Your task to perform on an android device: Open calendar and show me the third week of next month Image 0: 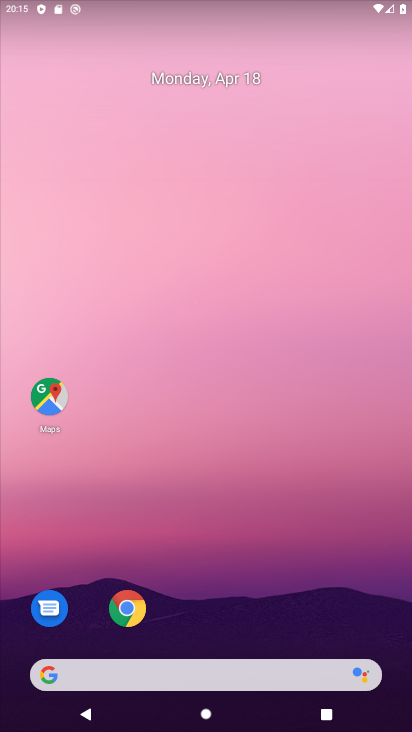
Step 0: drag from (219, 585) to (219, 108)
Your task to perform on an android device: Open calendar and show me the third week of next month Image 1: 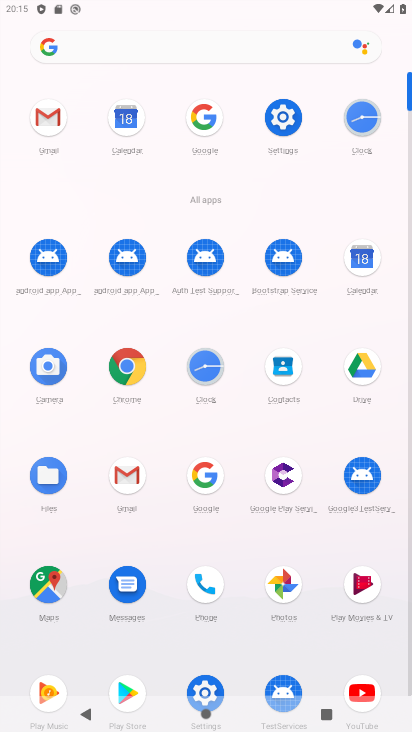
Step 1: click (366, 252)
Your task to perform on an android device: Open calendar and show me the third week of next month Image 2: 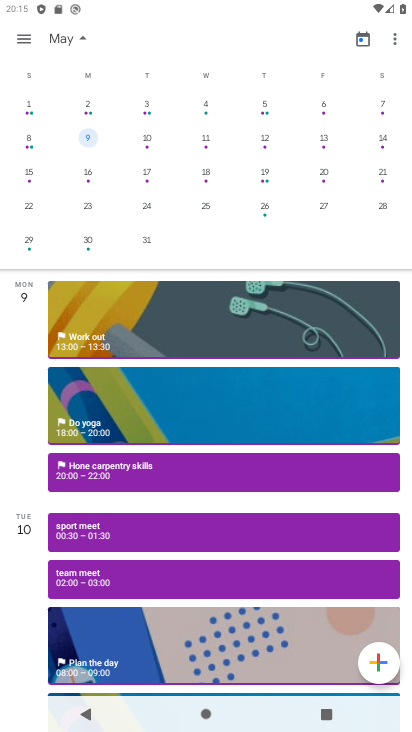
Step 2: click (91, 170)
Your task to perform on an android device: Open calendar and show me the third week of next month Image 3: 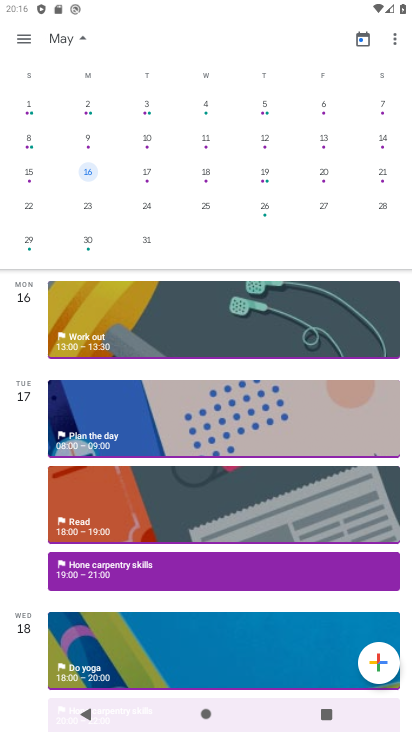
Step 3: task complete